Your task to perform on an android device: What's on my calendar tomorrow? Image 0: 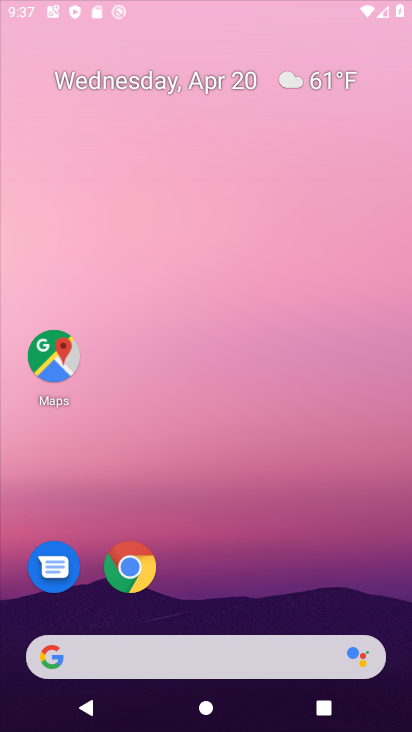
Step 0: click (367, 0)
Your task to perform on an android device: What's on my calendar tomorrow? Image 1: 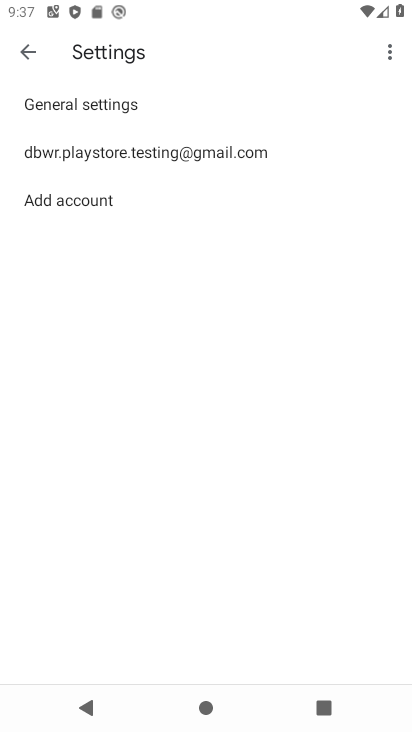
Step 1: press back button
Your task to perform on an android device: What's on my calendar tomorrow? Image 2: 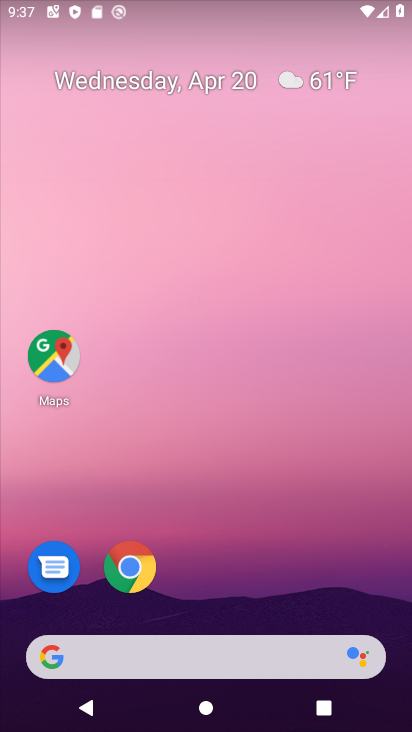
Step 2: drag from (186, 528) to (272, 53)
Your task to perform on an android device: What's on my calendar tomorrow? Image 3: 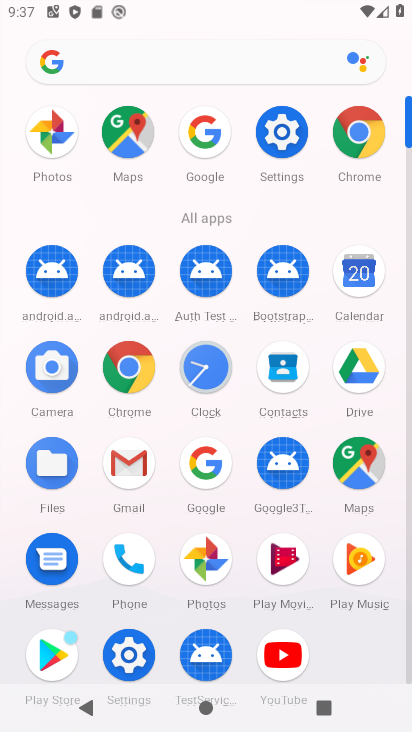
Step 3: click (361, 270)
Your task to perform on an android device: What's on my calendar tomorrow? Image 4: 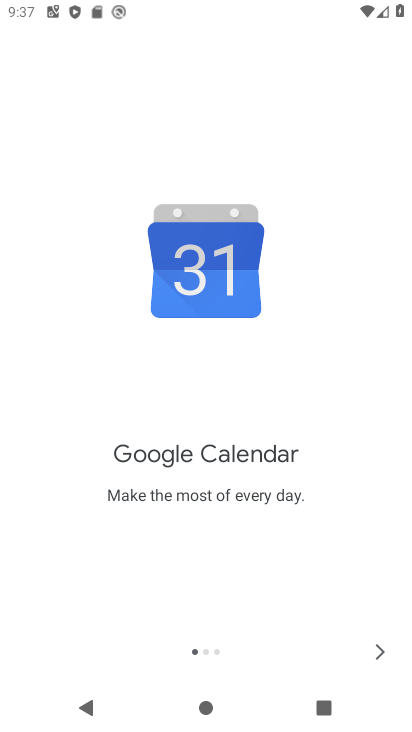
Step 4: click (363, 658)
Your task to perform on an android device: What's on my calendar tomorrow? Image 5: 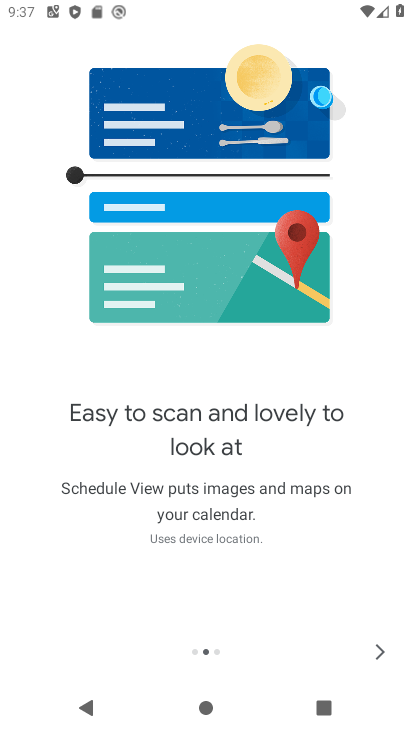
Step 5: click (367, 640)
Your task to perform on an android device: What's on my calendar tomorrow? Image 6: 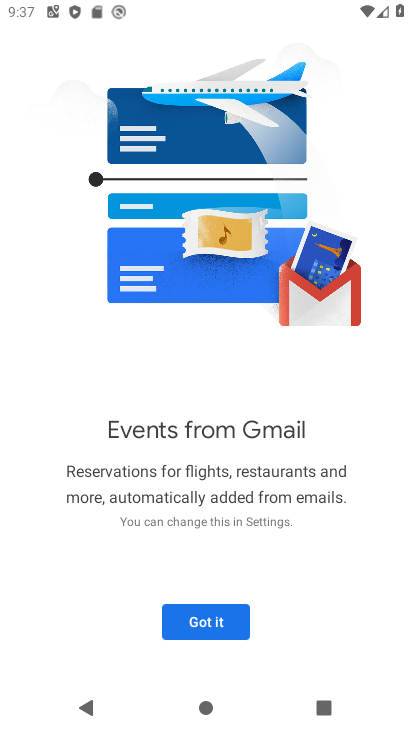
Step 6: click (225, 628)
Your task to perform on an android device: What's on my calendar tomorrow? Image 7: 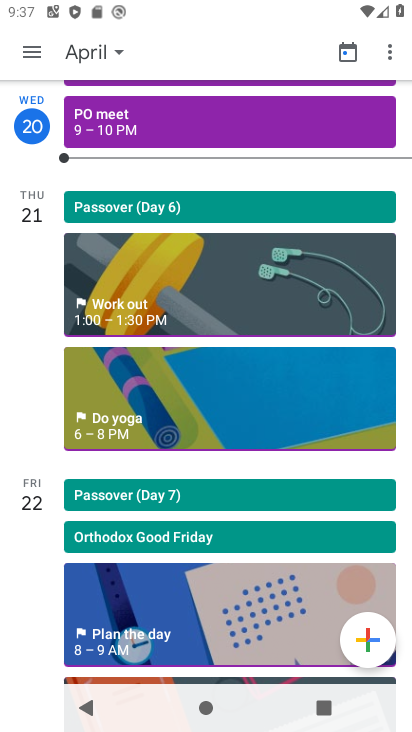
Step 7: drag from (206, 610) to (251, 331)
Your task to perform on an android device: What's on my calendar tomorrow? Image 8: 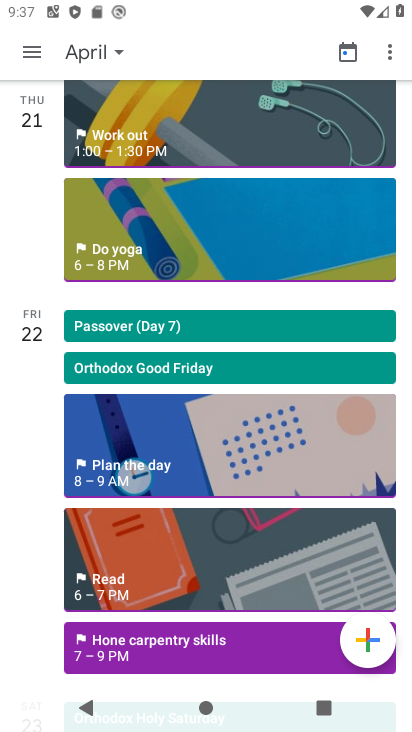
Step 8: click (123, 644)
Your task to perform on an android device: What's on my calendar tomorrow? Image 9: 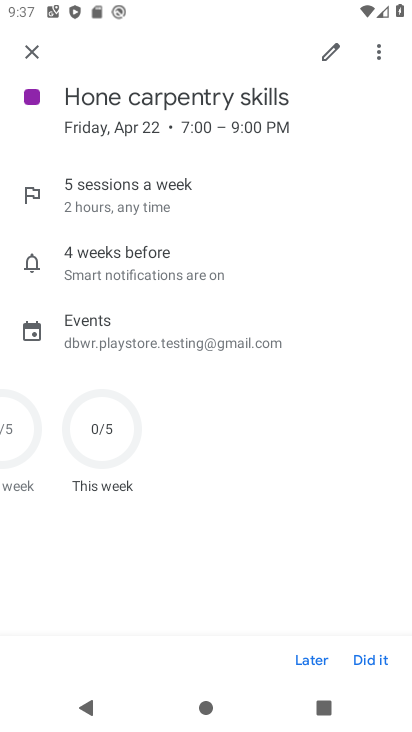
Step 9: task complete